Your task to perform on an android device: check storage Image 0: 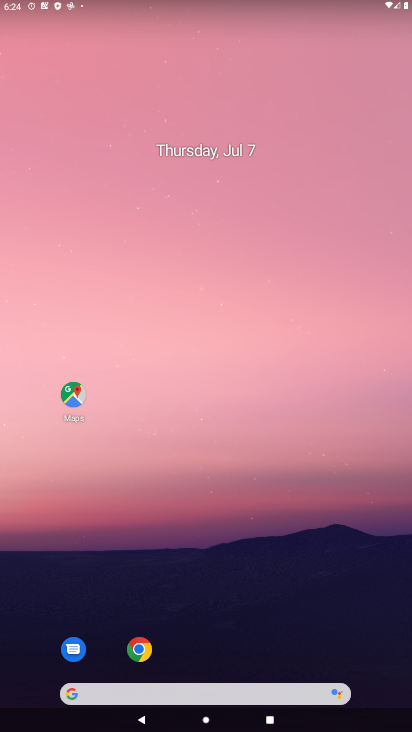
Step 0: drag from (372, 706) to (204, 42)
Your task to perform on an android device: check storage Image 1: 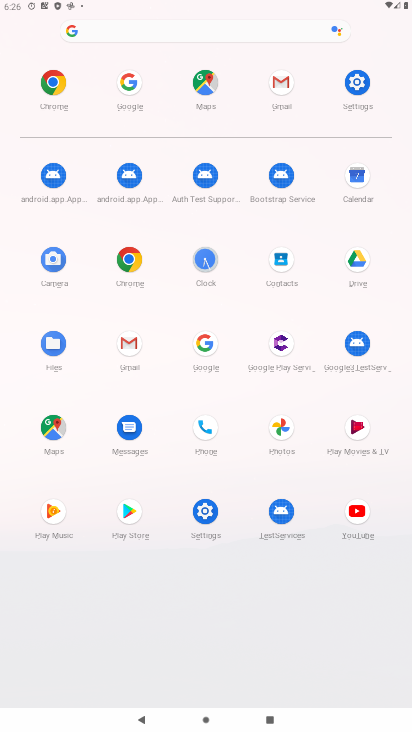
Step 1: click (361, 88)
Your task to perform on an android device: check storage Image 2: 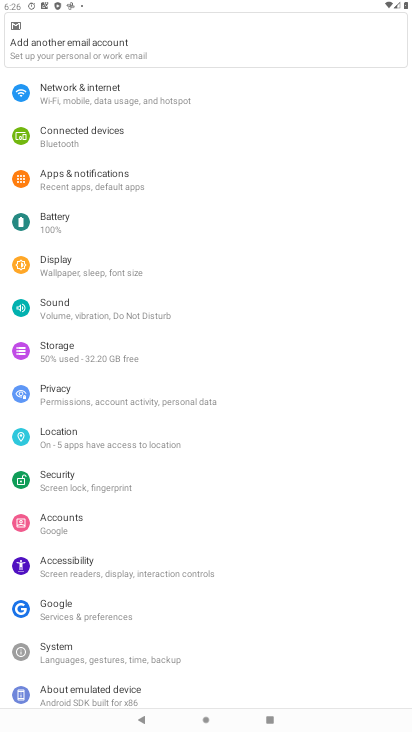
Step 2: click (101, 344)
Your task to perform on an android device: check storage Image 3: 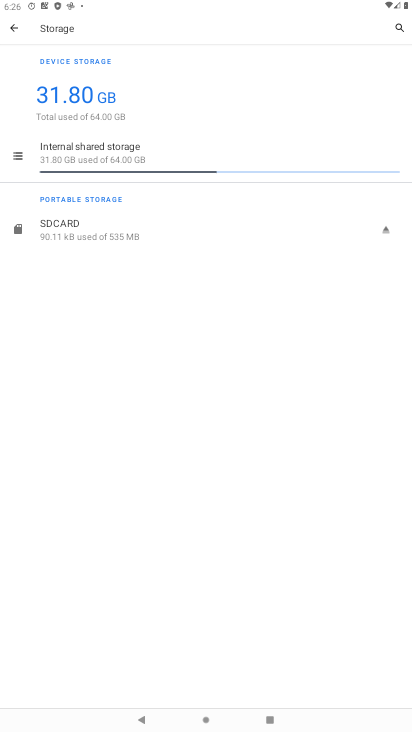
Step 3: click (91, 85)
Your task to perform on an android device: check storage Image 4: 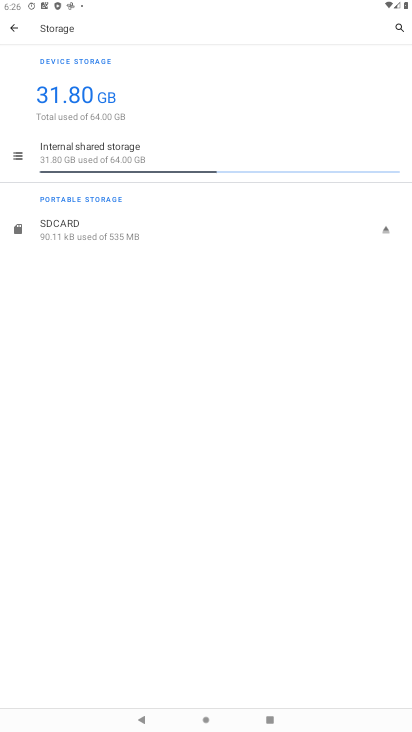
Step 4: click (96, 151)
Your task to perform on an android device: check storage Image 5: 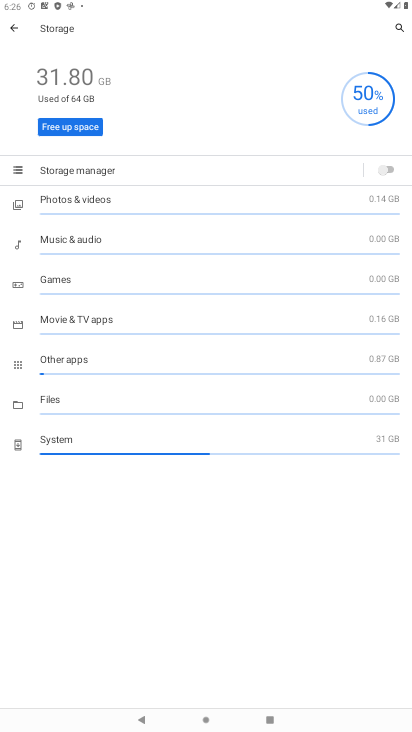
Step 5: task complete